Your task to perform on an android device: Open location settings Image 0: 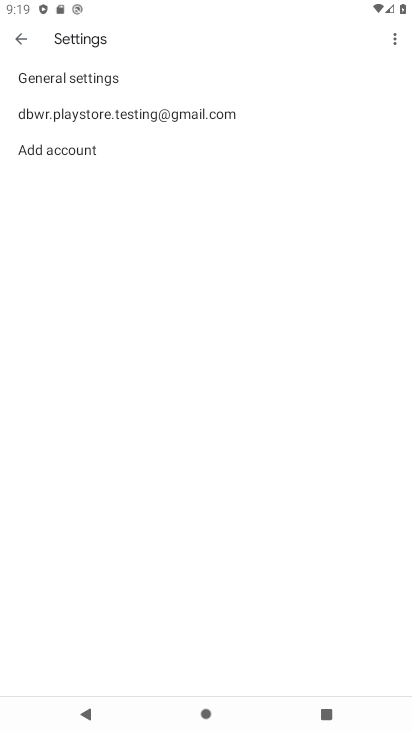
Step 0: press back button
Your task to perform on an android device: Open location settings Image 1: 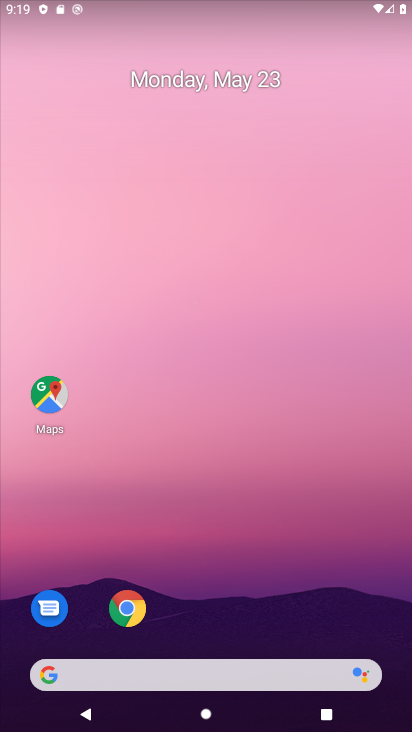
Step 1: drag from (210, 629) to (207, 117)
Your task to perform on an android device: Open location settings Image 2: 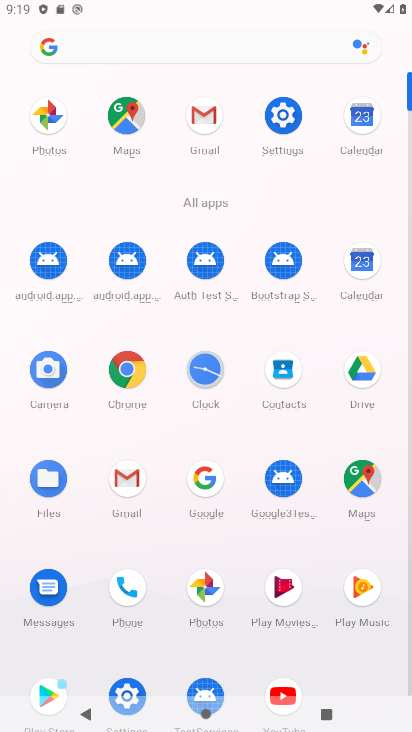
Step 2: click (285, 126)
Your task to perform on an android device: Open location settings Image 3: 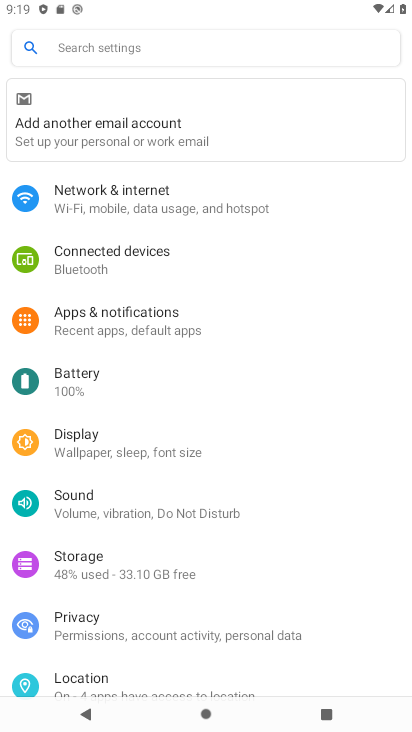
Step 3: click (179, 686)
Your task to perform on an android device: Open location settings Image 4: 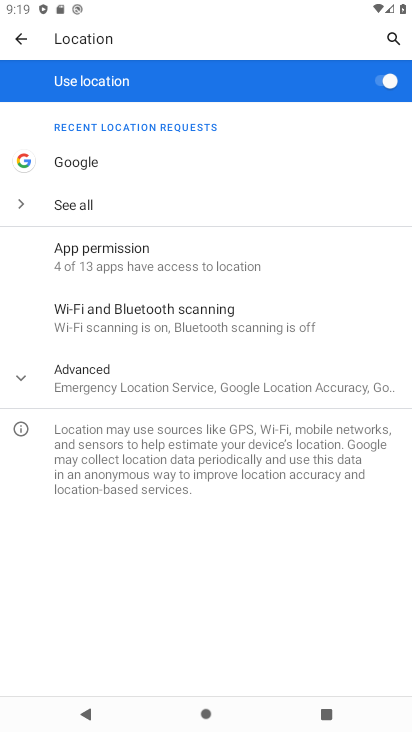
Step 4: task complete